Your task to perform on an android device: open chrome privacy settings Image 0: 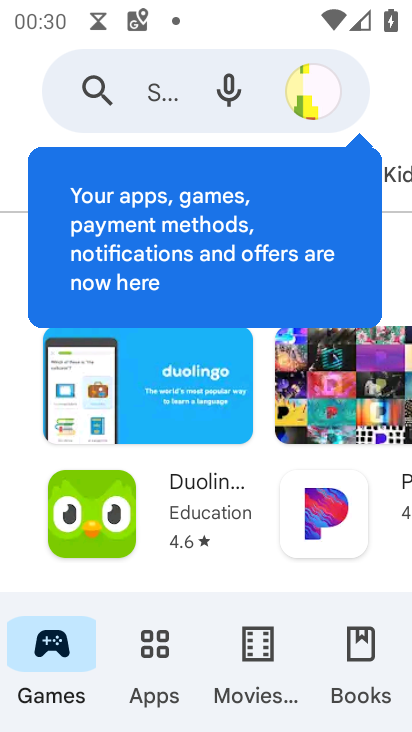
Step 0: press home button
Your task to perform on an android device: open chrome privacy settings Image 1: 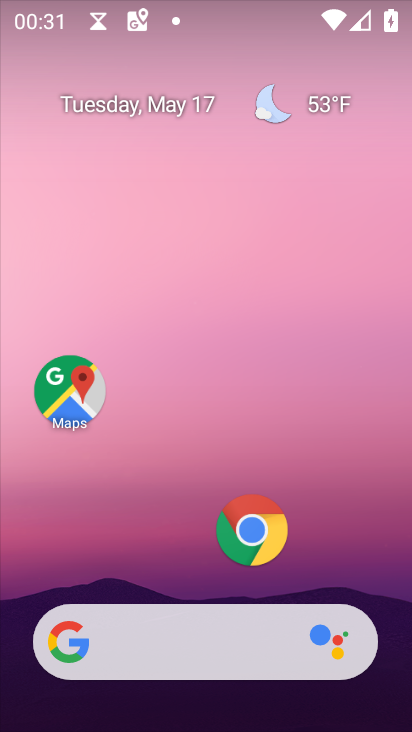
Step 1: click (278, 542)
Your task to perform on an android device: open chrome privacy settings Image 2: 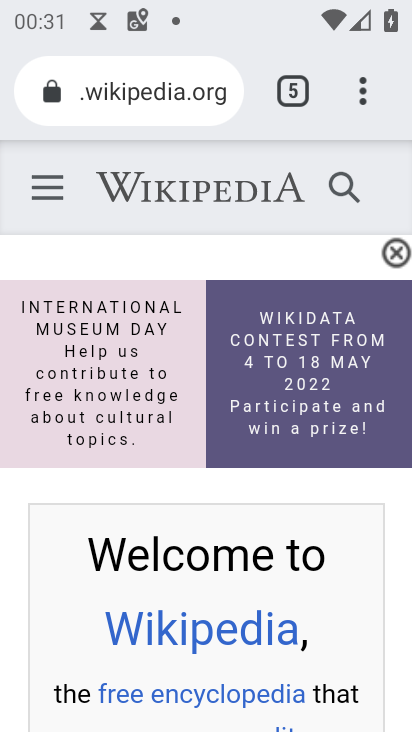
Step 2: click (362, 84)
Your task to perform on an android device: open chrome privacy settings Image 3: 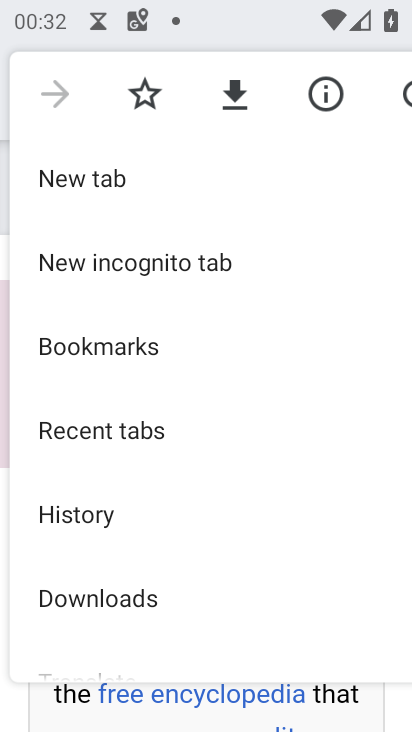
Step 3: drag from (152, 573) to (186, 87)
Your task to perform on an android device: open chrome privacy settings Image 4: 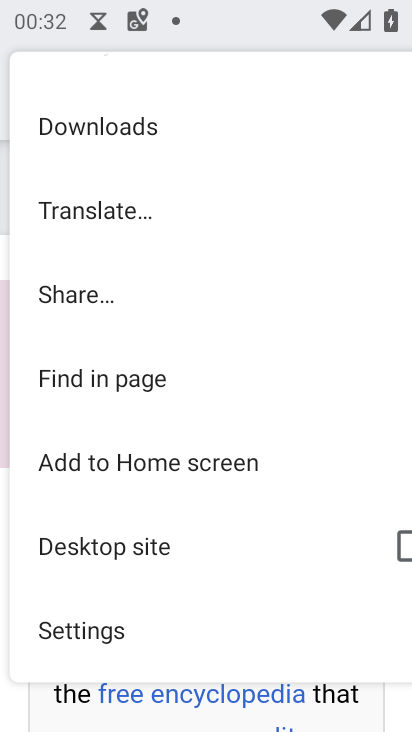
Step 4: click (120, 629)
Your task to perform on an android device: open chrome privacy settings Image 5: 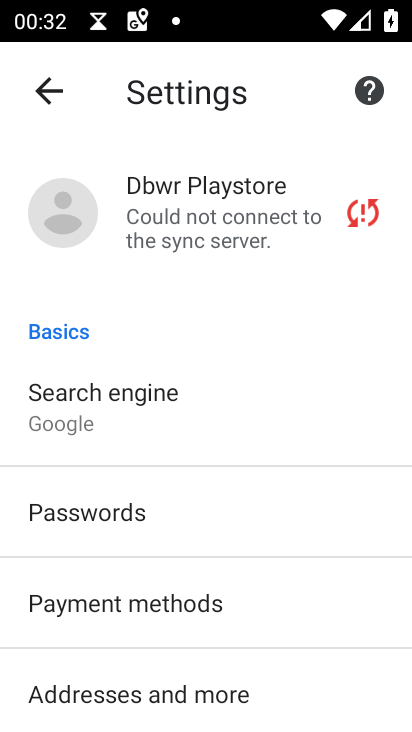
Step 5: drag from (242, 603) to (279, 209)
Your task to perform on an android device: open chrome privacy settings Image 6: 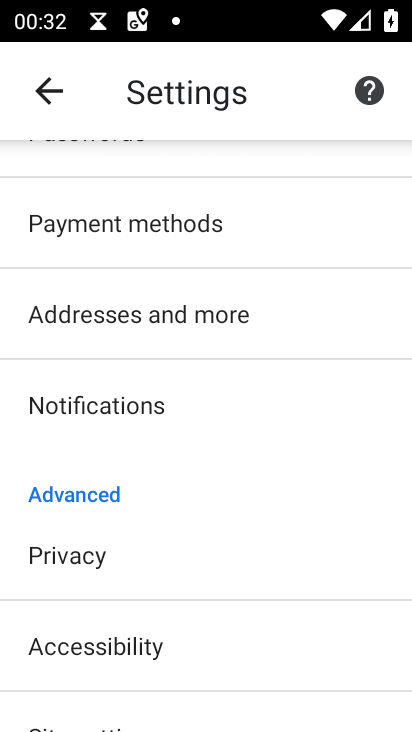
Step 6: click (125, 557)
Your task to perform on an android device: open chrome privacy settings Image 7: 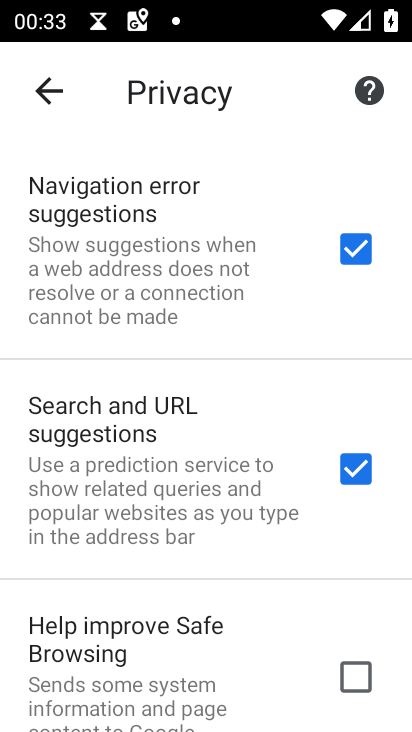
Step 7: task complete